Your task to perform on an android device: toggle javascript in the chrome app Image 0: 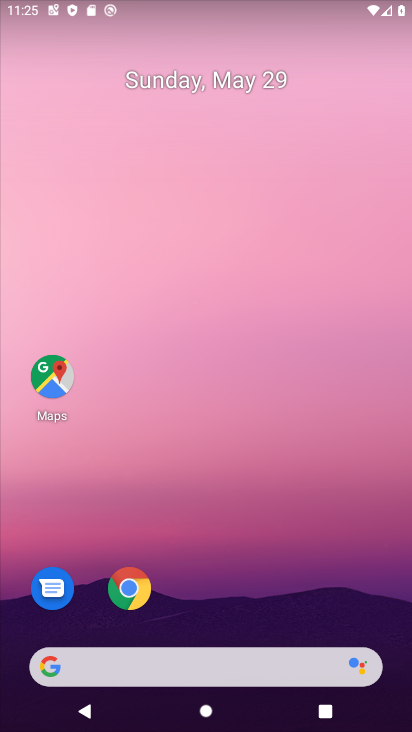
Step 0: drag from (271, 500) to (283, 33)
Your task to perform on an android device: toggle javascript in the chrome app Image 1: 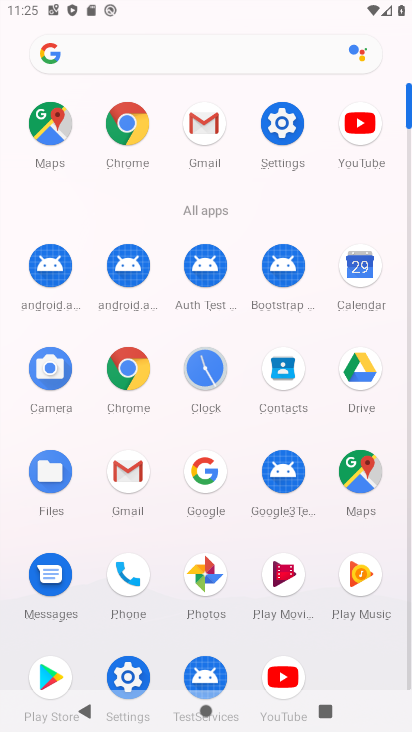
Step 1: click (127, 125)
Your task to perform on an android device: toggle javascript in the chrome app Image 2: 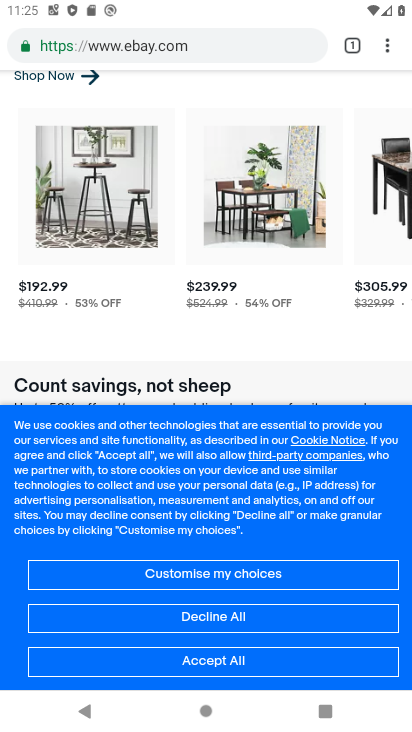
Step 2: drag from (388, 42) to (241, 550)
Your task to perform on an android device: toggle javascript in the chrome app Image 3: 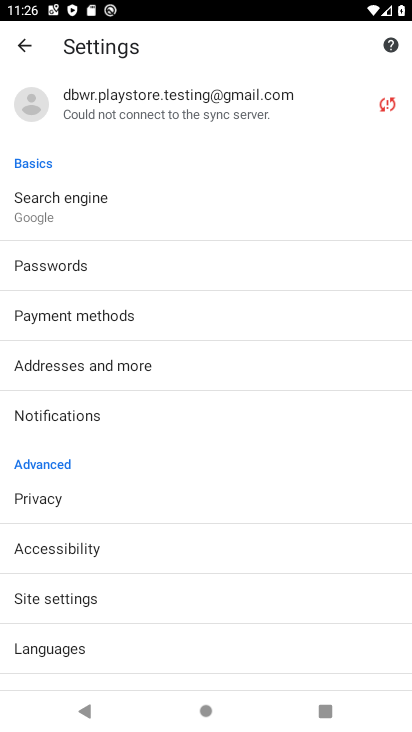
Step 3: drag from (159, 520) to (222, 159)
Your task to perform on an android device: toggle javascript in the chrome app Image 4: 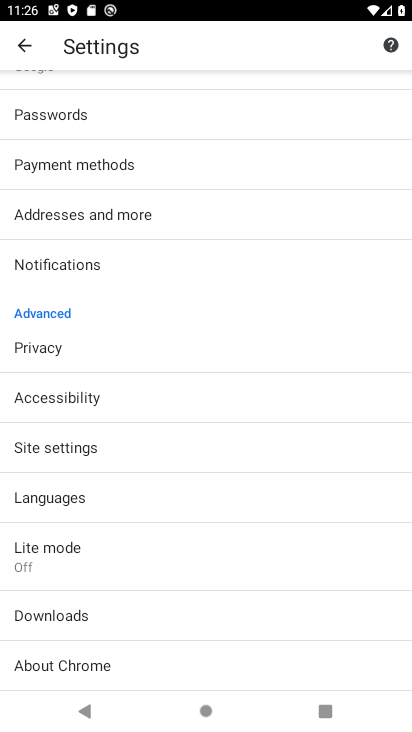
Step 4: click (86, 451)
Your task to perform on an android device: toggle javascript in the chrome app Image 5: 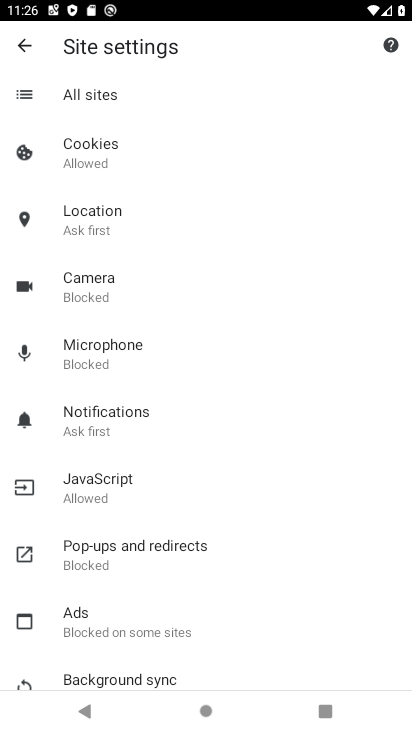
Step 5: click (120, 489)
Your task to perform on an android device: toggle javascript in the chrome app Image 6: 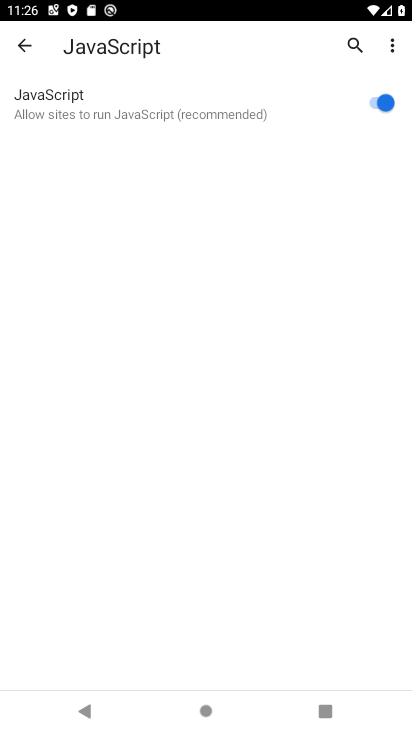
Step 6: click (382, 104)
Your task to perform on an android device: toggle javascript in the chrome app Image 7: 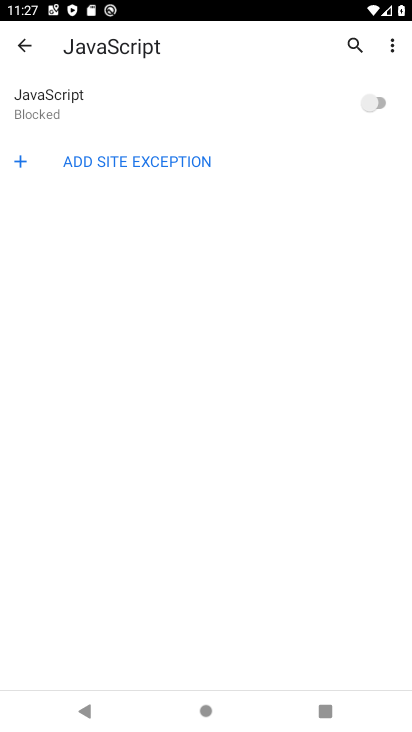
Step 7: task complete